Your task to perform on an android device: Go to notification settings Image 0: 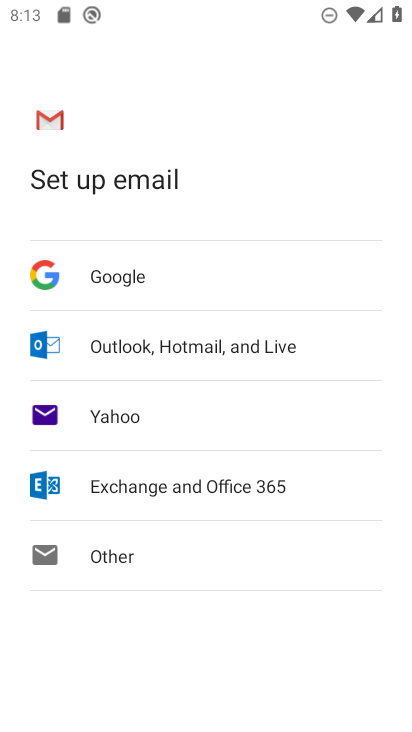
Step 0: press back button
Your task to perform on an android device: Go to notification settings Image 1: 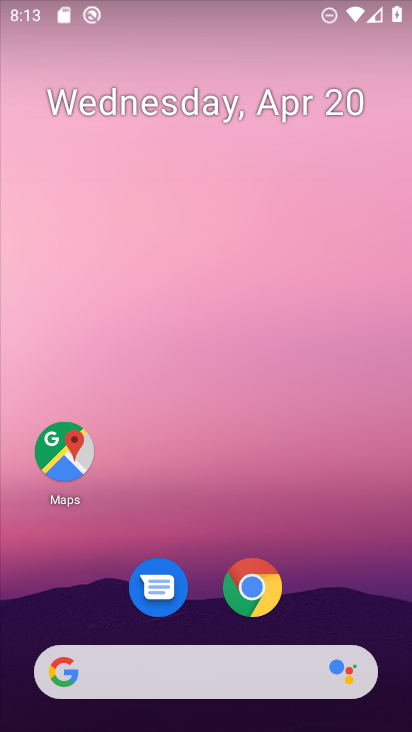
Step 1: drag from (361, 582) to (279, 45)
Your task to perform on an android device: Go to notification settings Image 2: 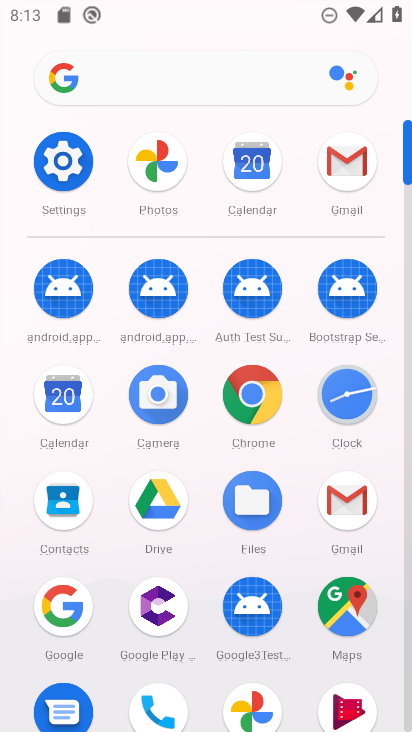
Step 2: click (67, 161)
Your task to perform on an android device: Go to notification settings Image 3: 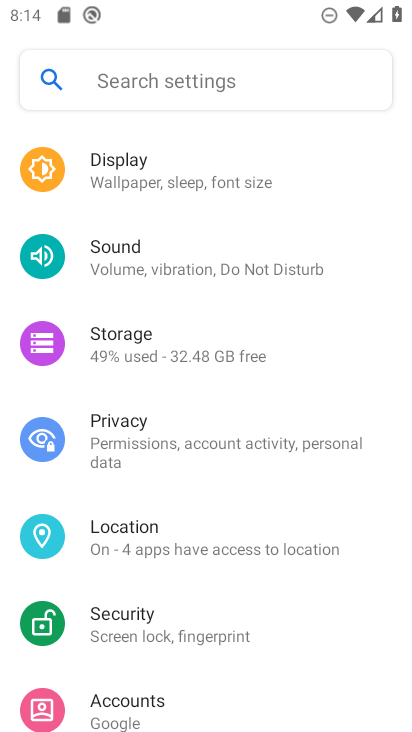
Step 3: drag from (195, 399) to (262, 683)
Your task to perform on an android device: Go to notification settings Image 4: 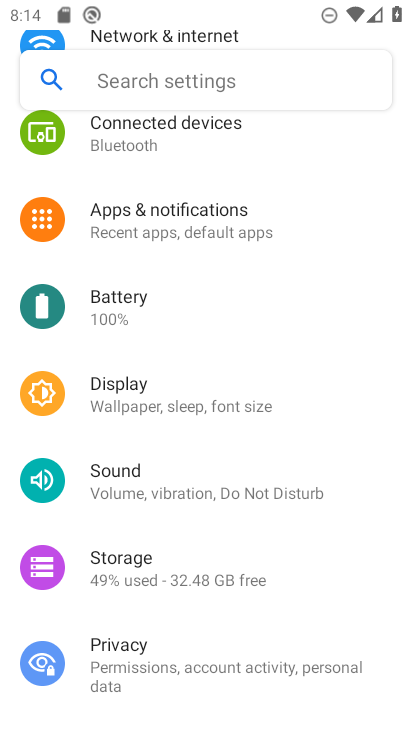
Step 4: click (212, 228)
Your task to perform on an android device: Go to notification settings Image 5: 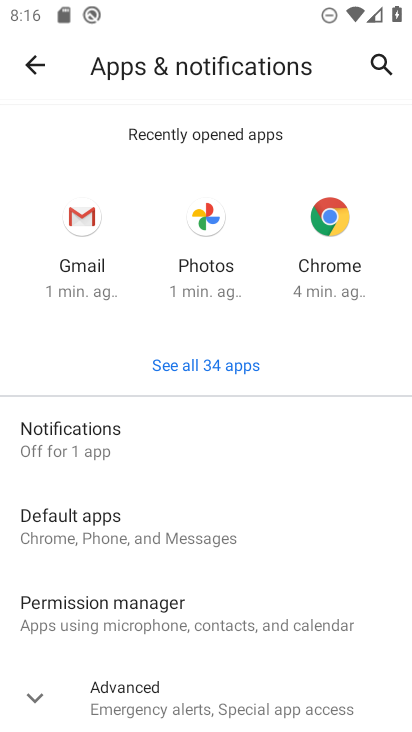
Step 5: click (131, 466)
Your task to perform on an android device: Go to notification settings Image 6: 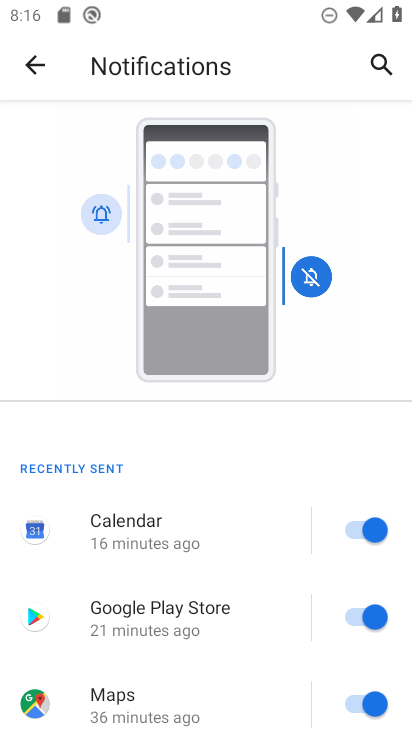
Step 6: drag from (176, 528) to (162, 6)
Your task to perform on an android device: Go to notification settings Image 7: 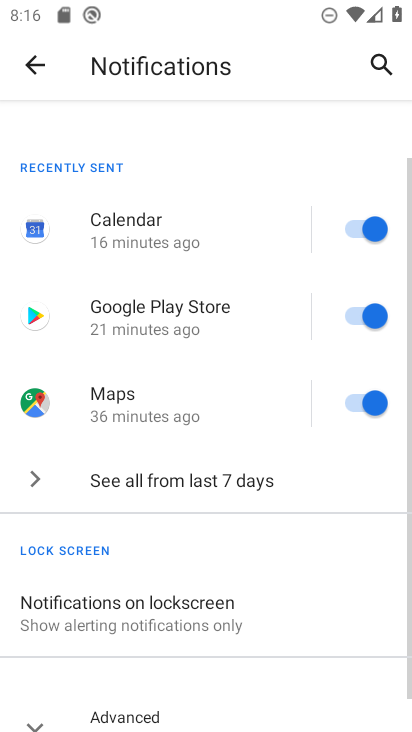
Step 7: drag from (242, 591) to (200, 267)
Your task to perform on an android device: Go to notification settings Image 8: 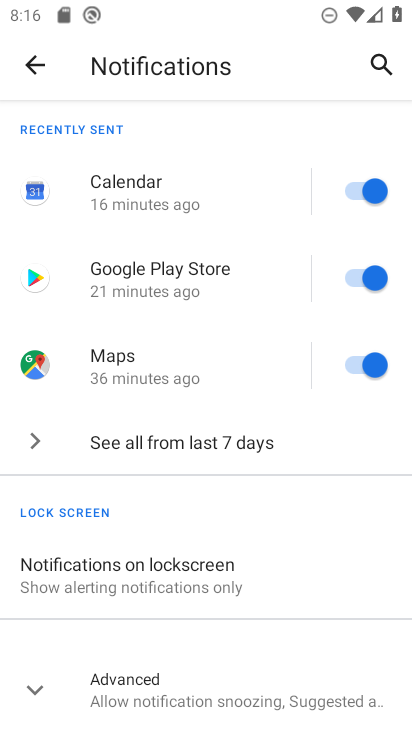
Step 8: click (230, 725)
Your task to perform on an android device: Go to notification settings Image 9: 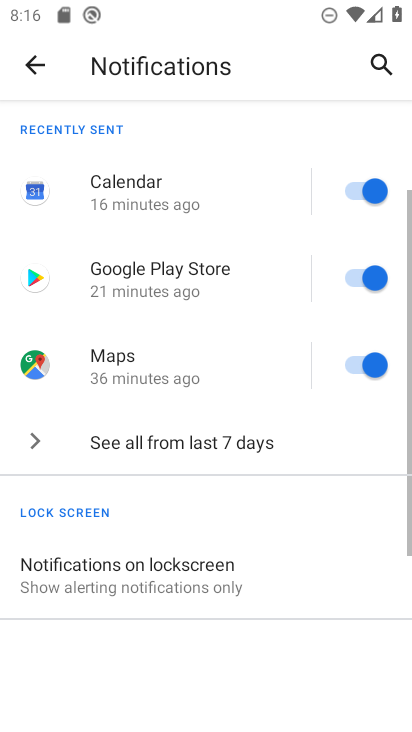
Step 9: click (215, 700)
Your task to perform on an android device: Go to notification settings Image 10: 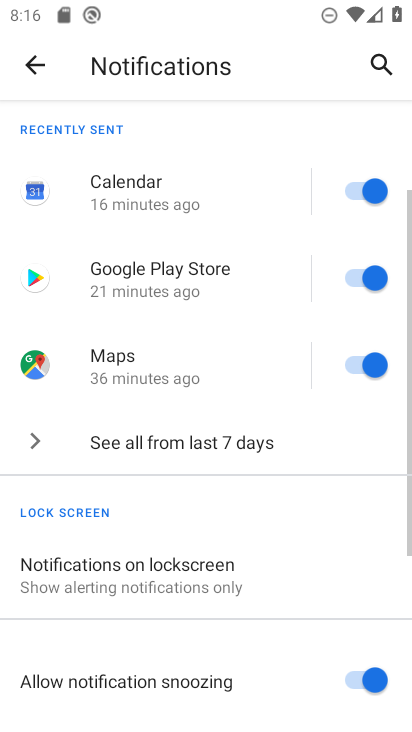
Step 10: task complete